Your task to perform on an android device: find photos in the google photos app Image 0: 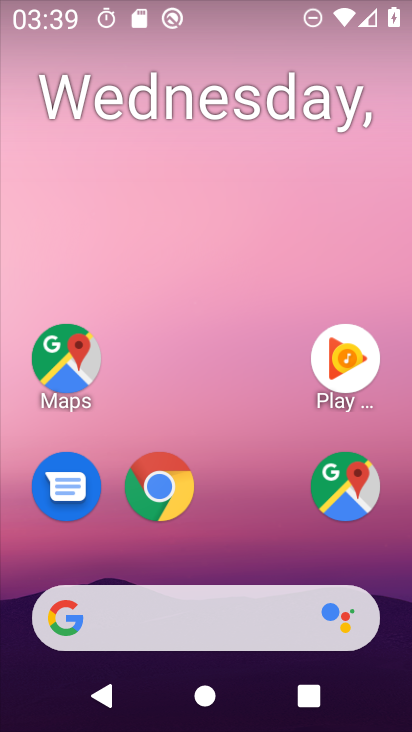
Step 0: press home button
Your task to perform on an android device: find photos in the google photos app Image 1: 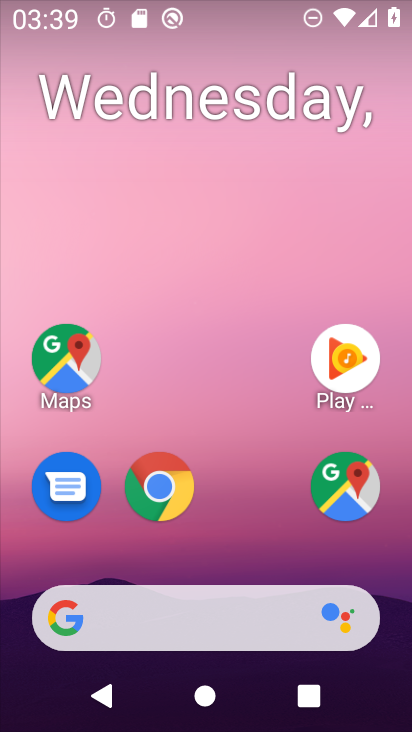
Step 1: drag from (249, 523) to (259, 179)
Your task to perform on an android device: find photos in the google photos app Image 2: 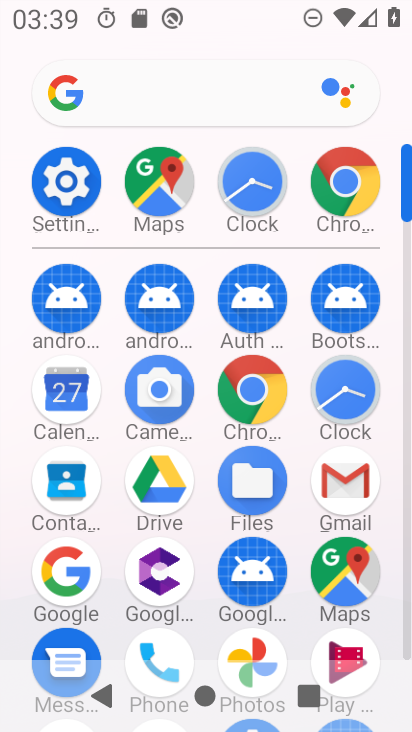
Step 2: drag from (391, 427) to (397, 212)
Your task to perform on an android device: find photos in the google photos app Image 3: 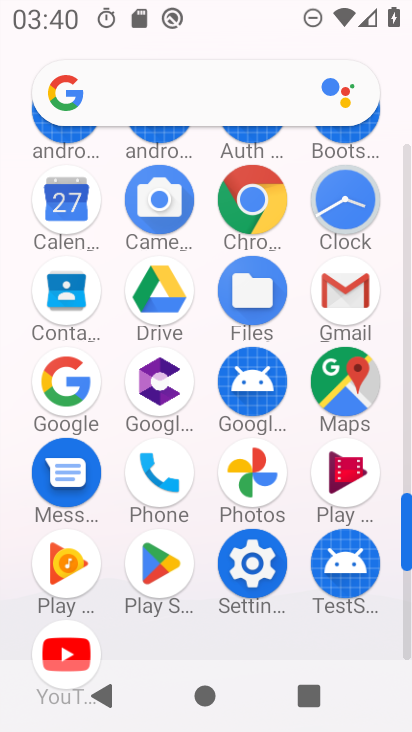
Step 3: click (247, 480)
Your task to perform on an android device: find photos in the google photos app Image 4: 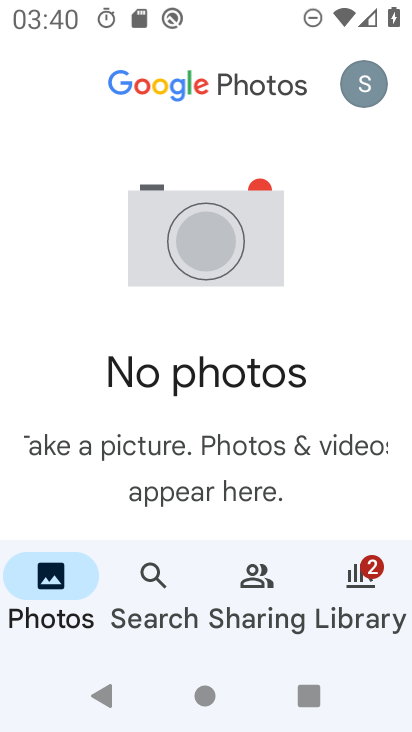
Step 4: task complete